Your task to perform on an android device: turn on showing notifications on the lock screen Image 0: 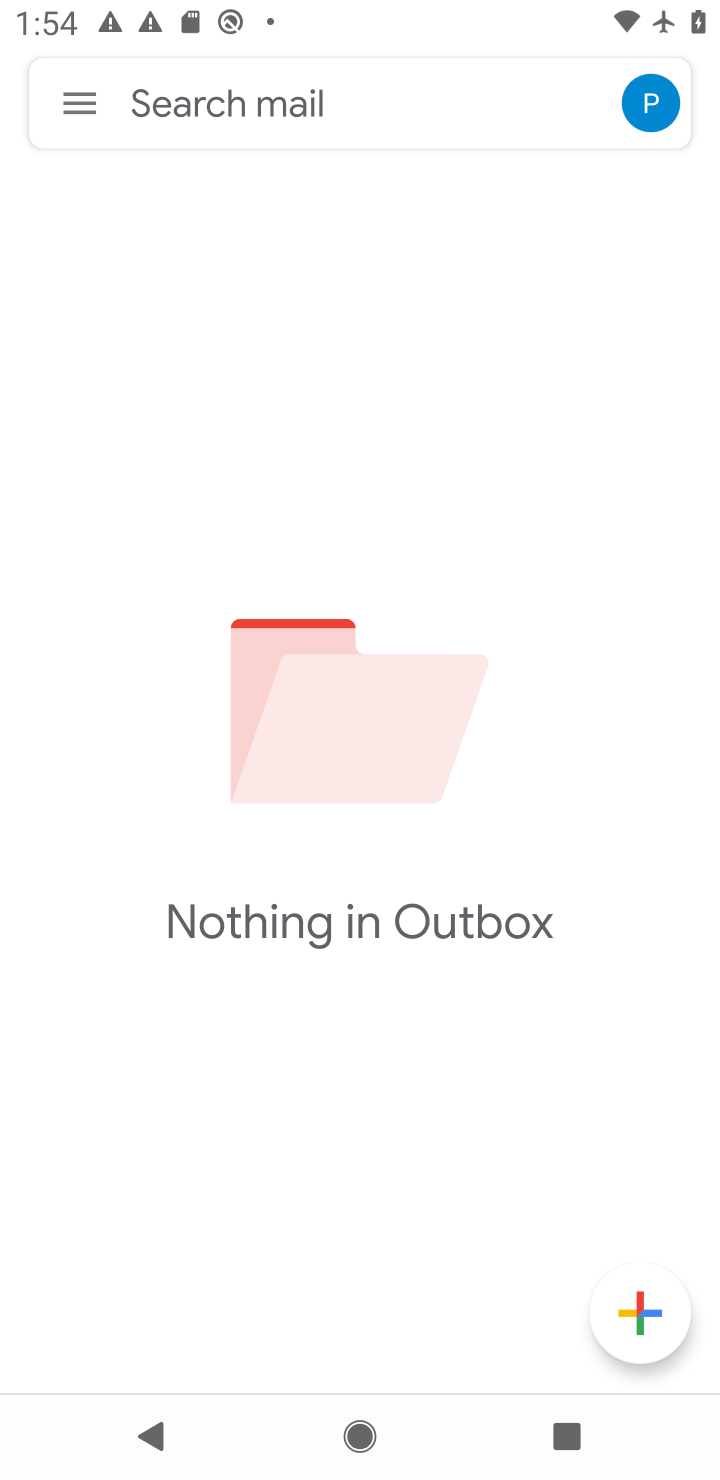
Step 0: press home button
Your task to perform on an android device: turn on showing notifications on the lock screen Image 1: 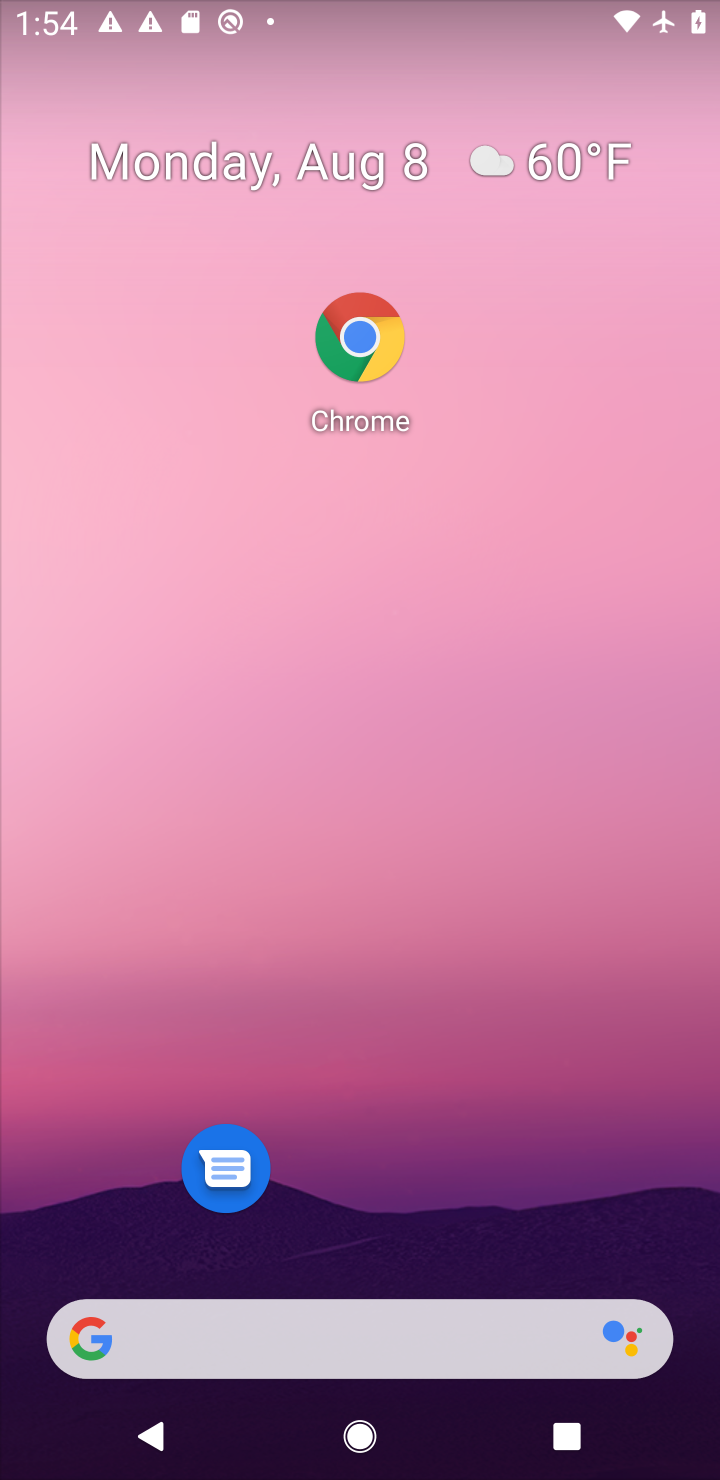
Step 1: drag from (454, 680) to (451, 159)
Your task to perform on an android device: turn on showing notifications on the lock screen Image 2: 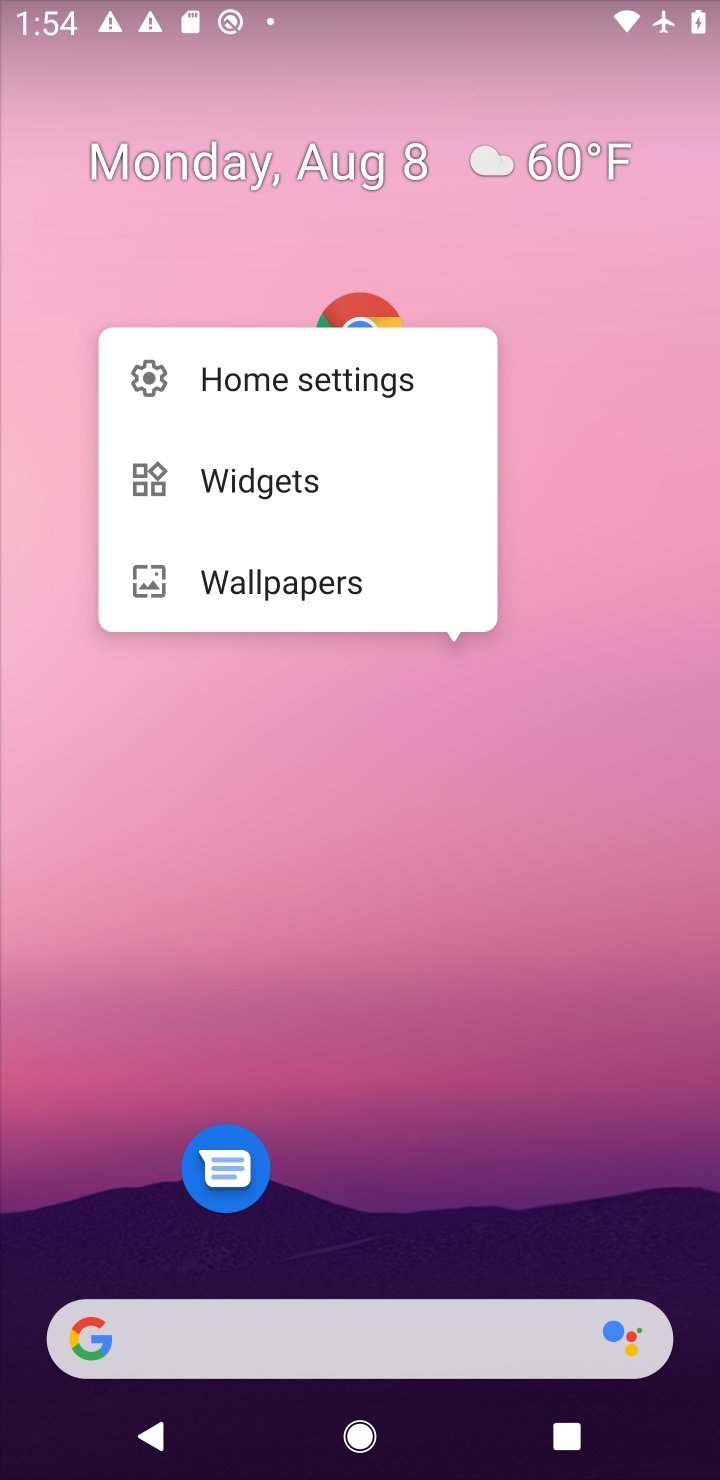
Step 2: click (387, 780)
Your task to perform on an android device: turn on showing notifications on the lock screen Image 3: 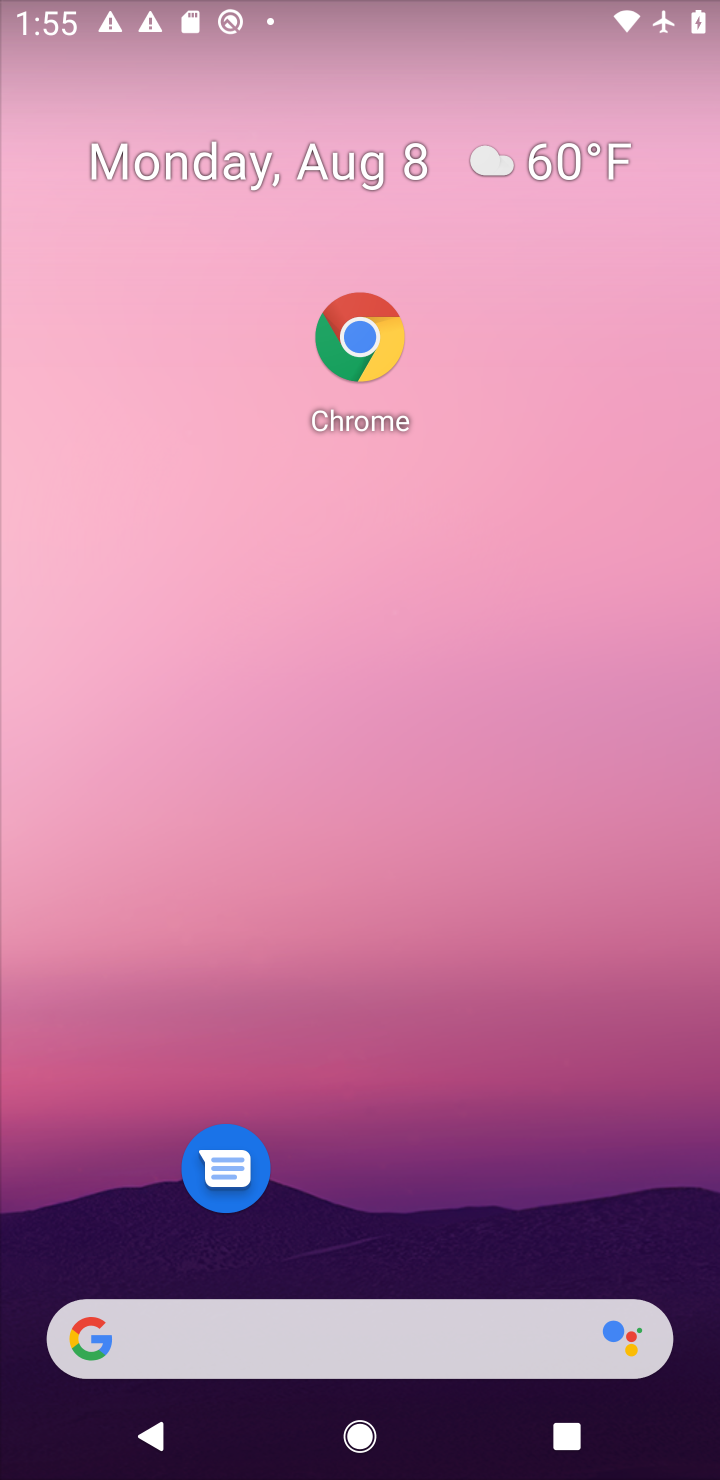
Step 3: drag from (425, 845) to (468, 200)
Your task to perform on an android device: turn on showing notifications on the lock screen Image 4: 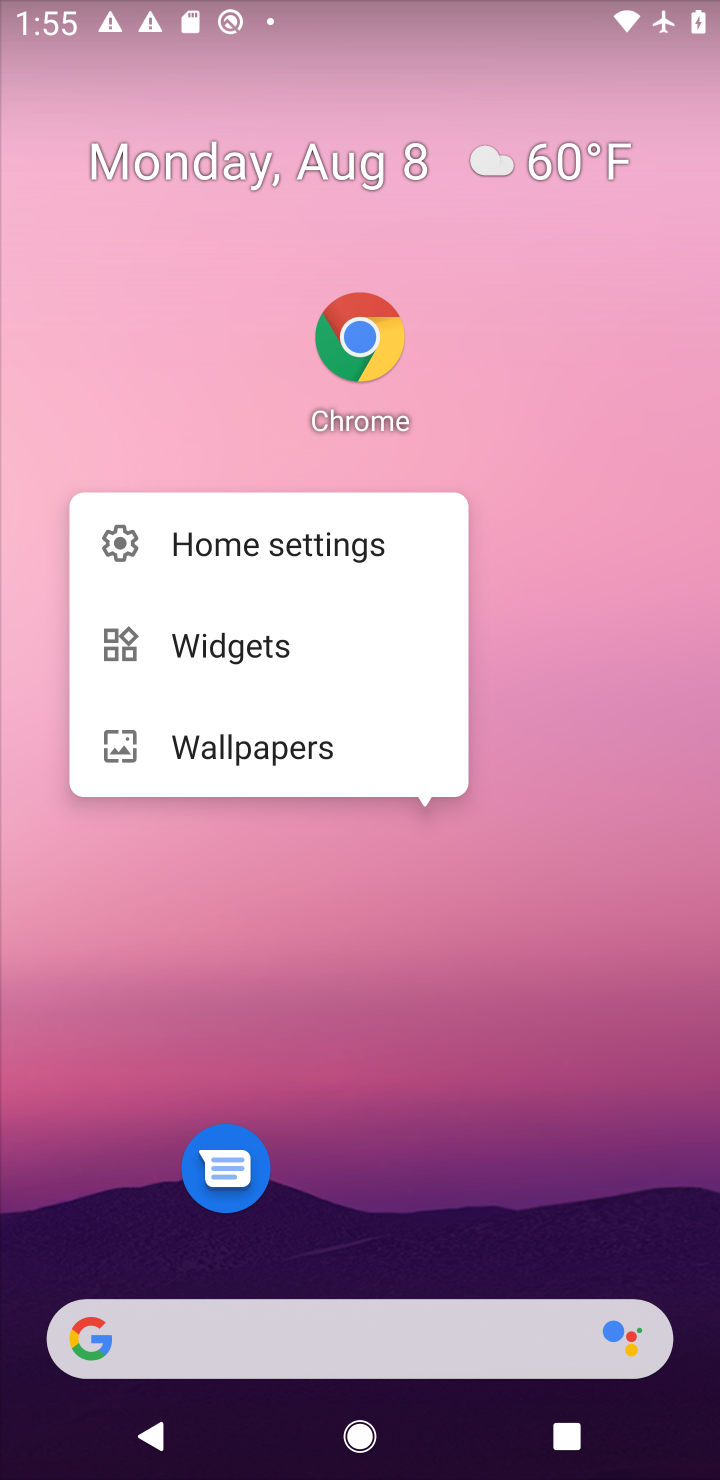
Step 4: click (502, 894)
Your task to perform on an android device: turn on showing notifications on the lock screen Image 5: 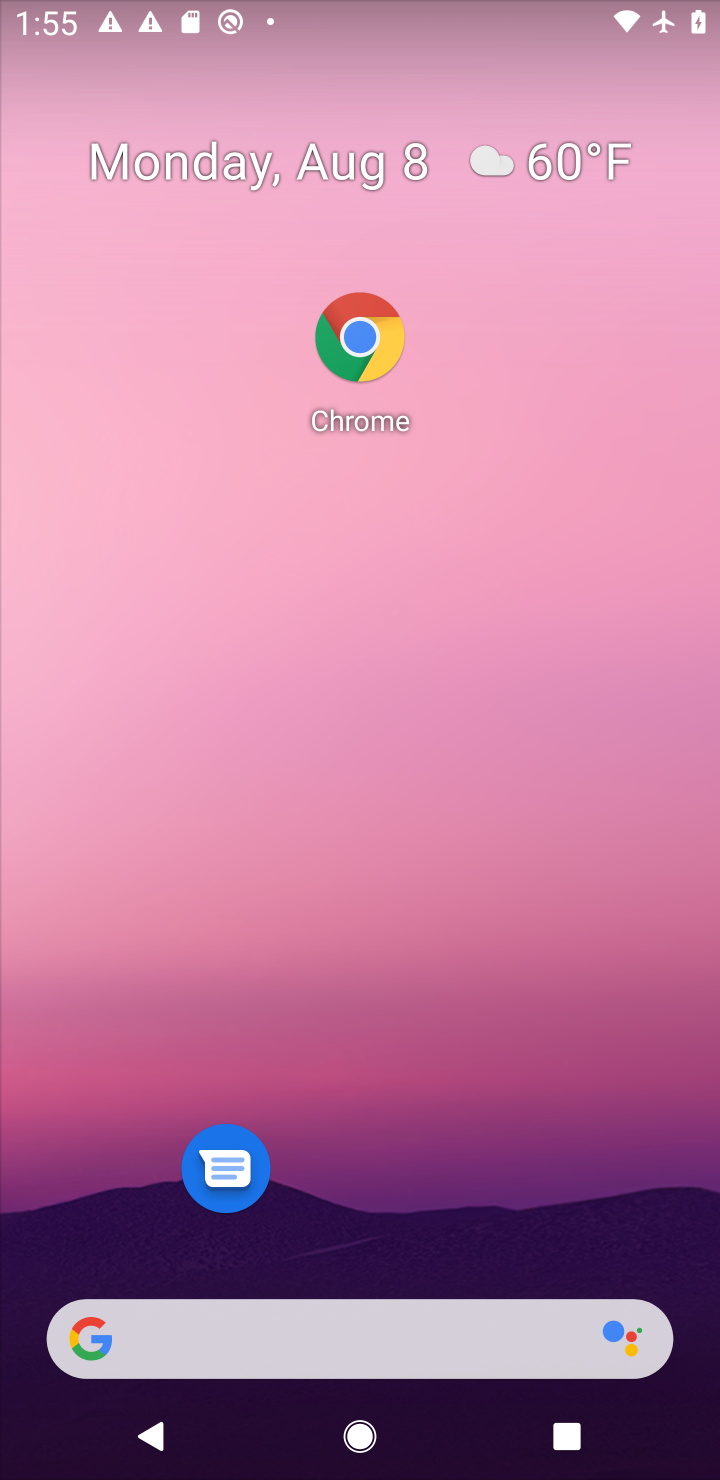
Step 5: drag from (510, 973) to (522, 220)
Your task to perform on an android device: turn on showing notifications on the lock screen Image 6: 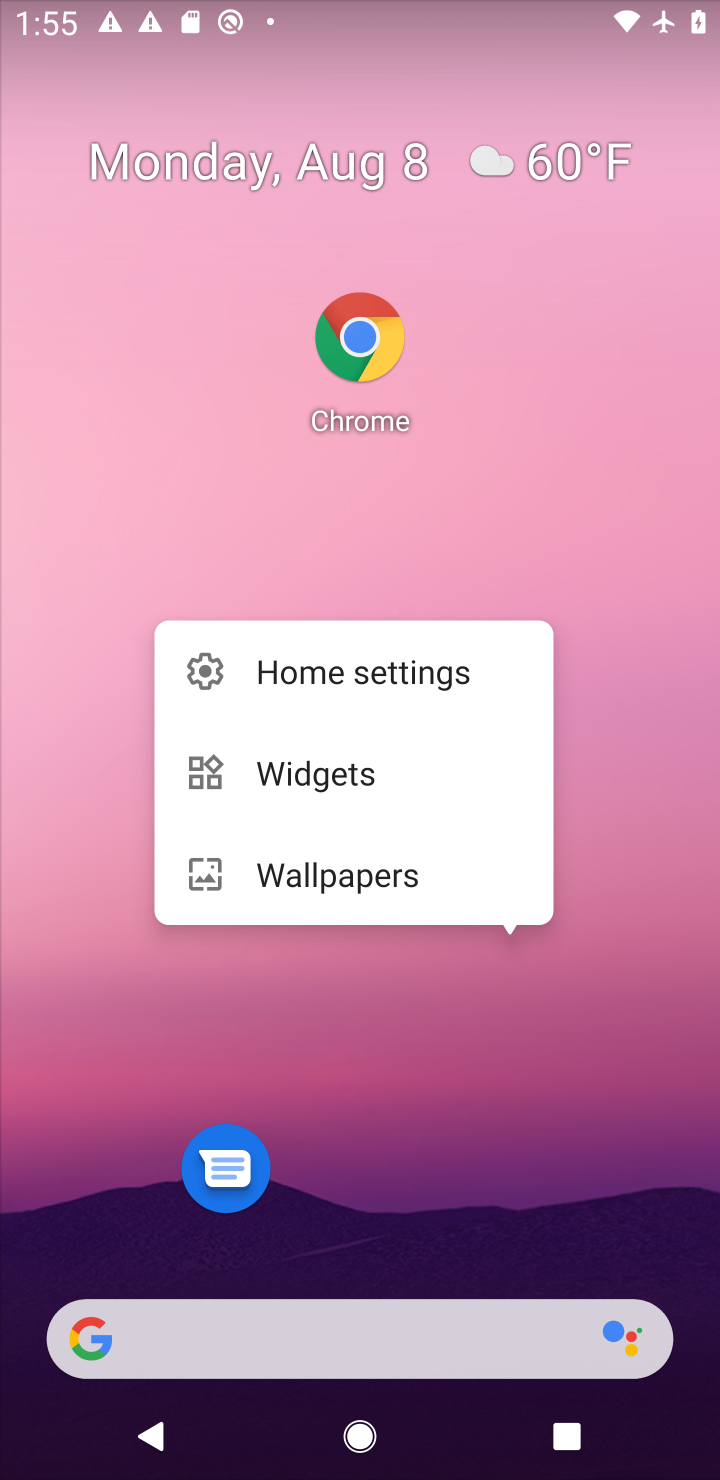
Step 6: click (522, 220)
Your task to perform on an android device: turn on showing notifications on the lock screen Image 7: 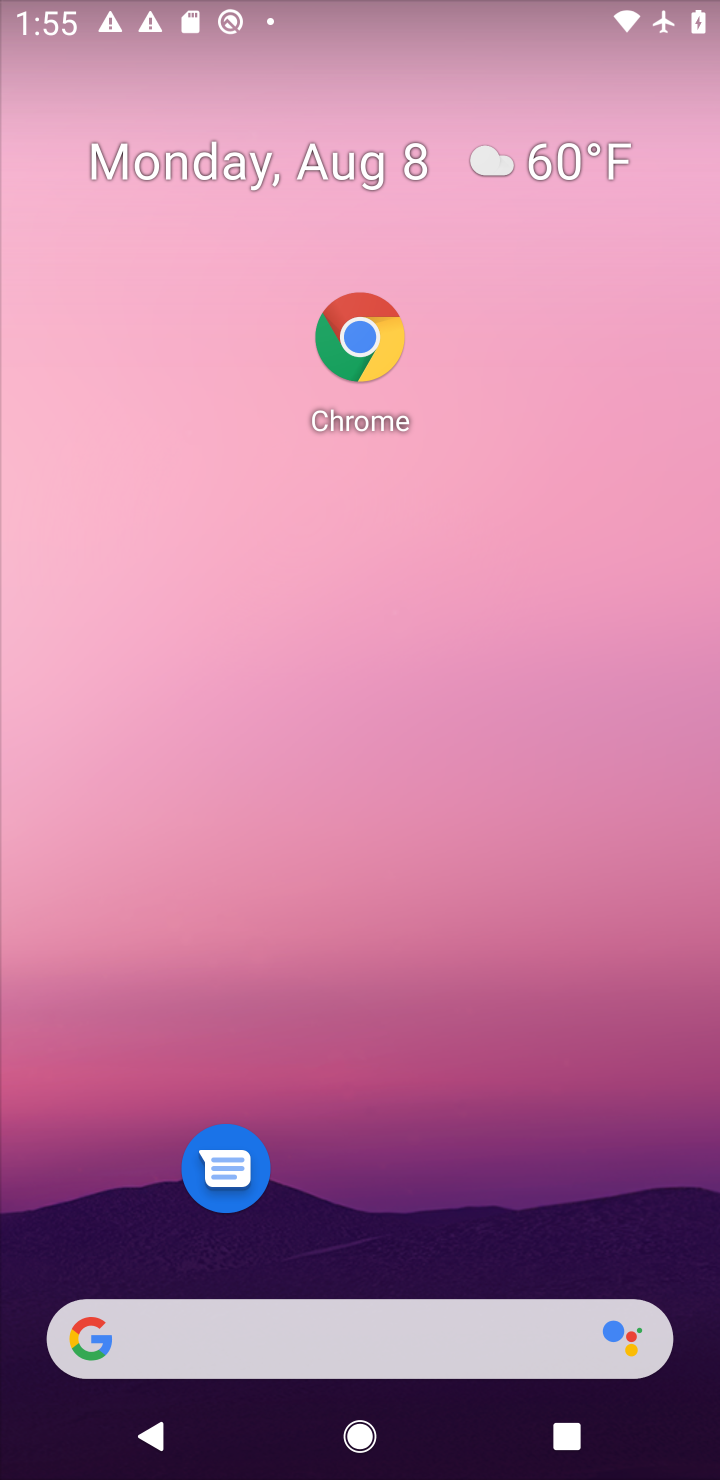
Step 7: drag from (368, 1268) to (449, 123)
Your task to perform on an android device: turn on showing notifications on the lock screen Image 8: 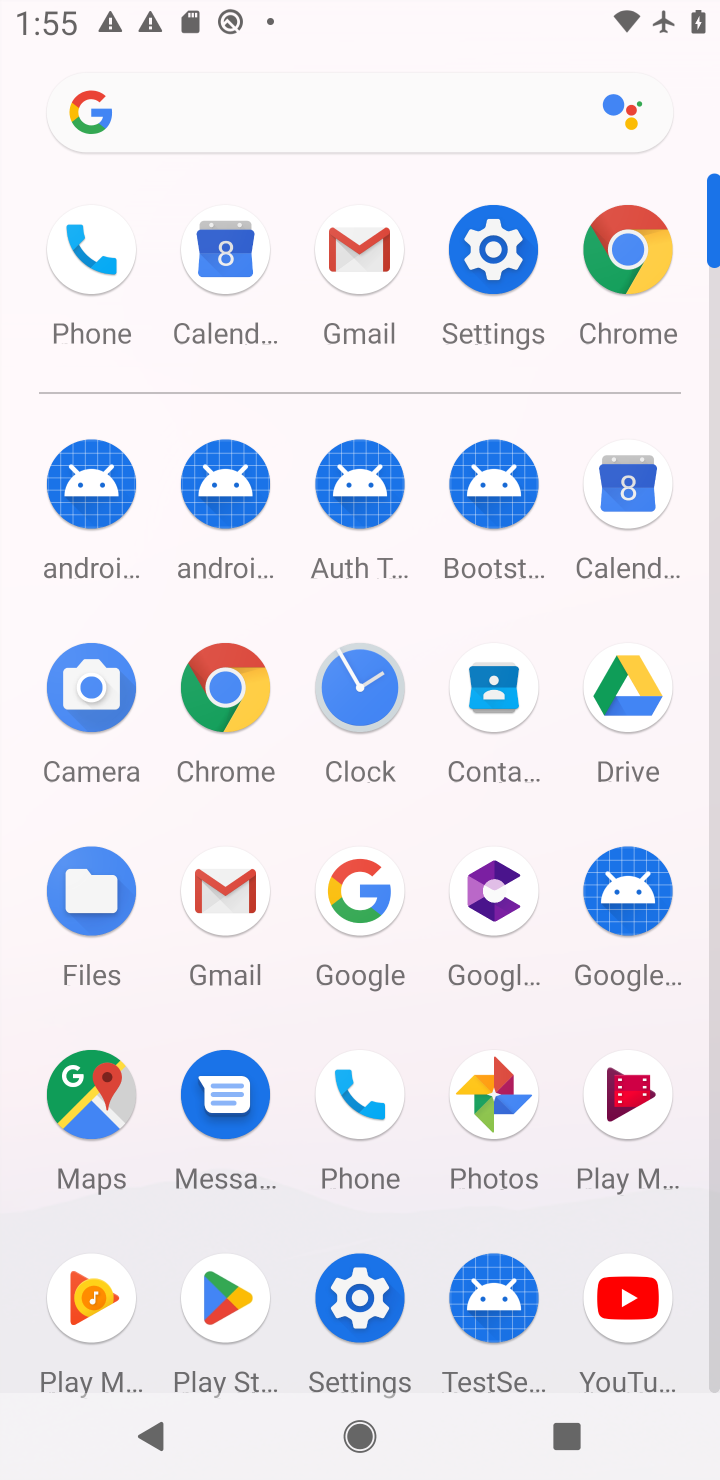
Step 8: click (475, 265)
Your task to perform on an android device: turn on showing notifications on the lock screen Image 9: 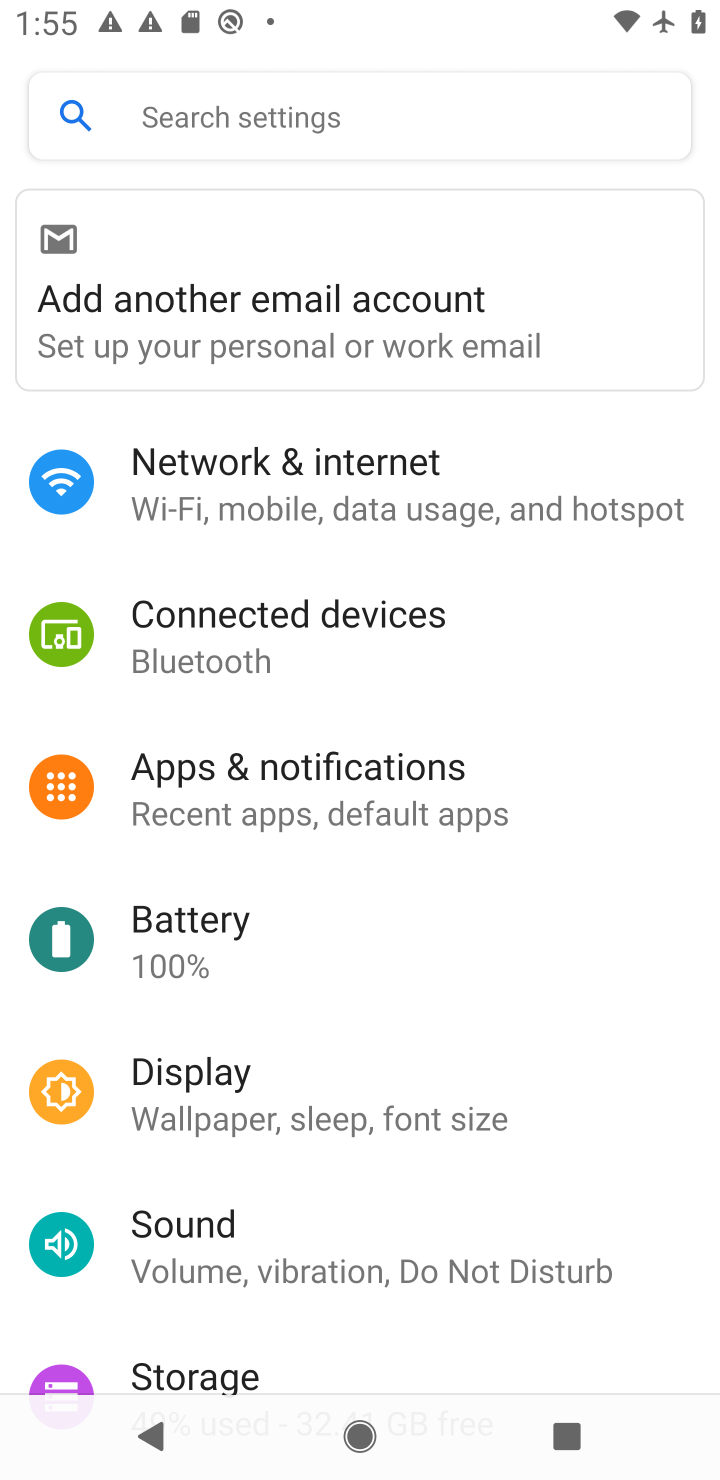
Step 9: click (359, 789)
Your task to perform on an android device: turn on showing notifications on the lock screen Image 10: 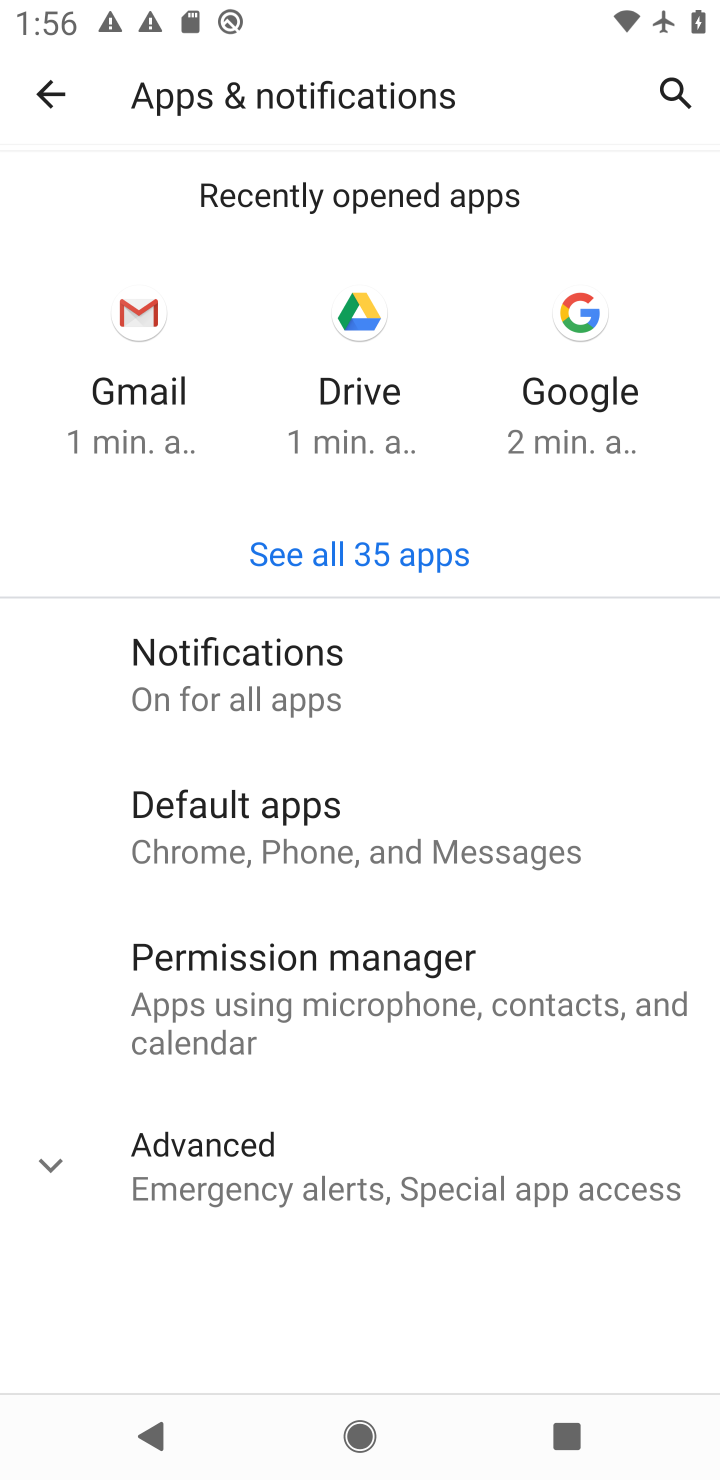
Step 10: task complete